Your task to perform on an android device: turn off airplane mode Image 0: 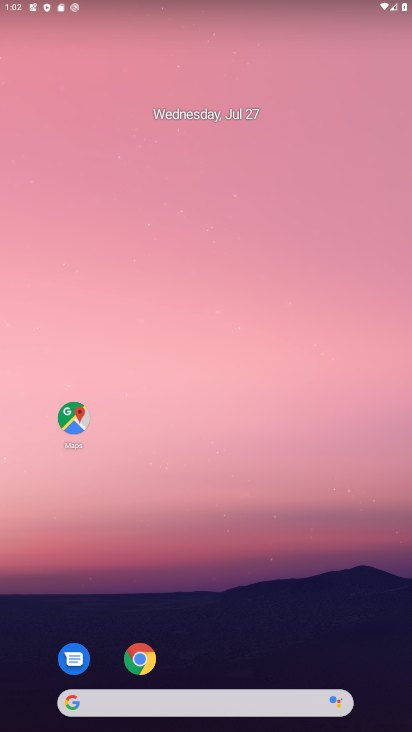
Step 0: press home button
Your task to perform on an android device: turn off airplane mode Image 1: 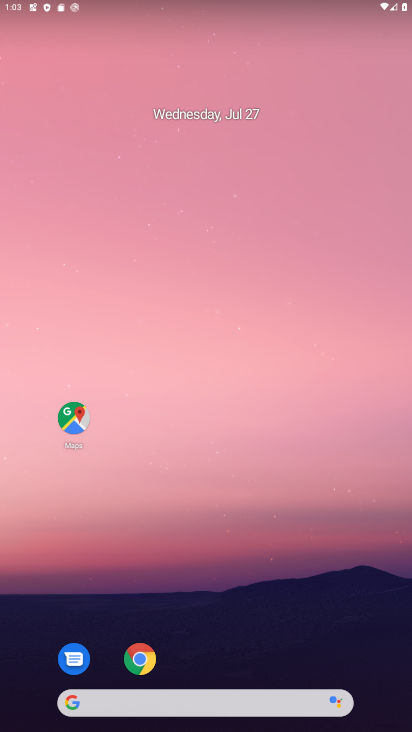
Step 1: task complete